Your task to perform on an android device: Open the stopwatch Image 0: 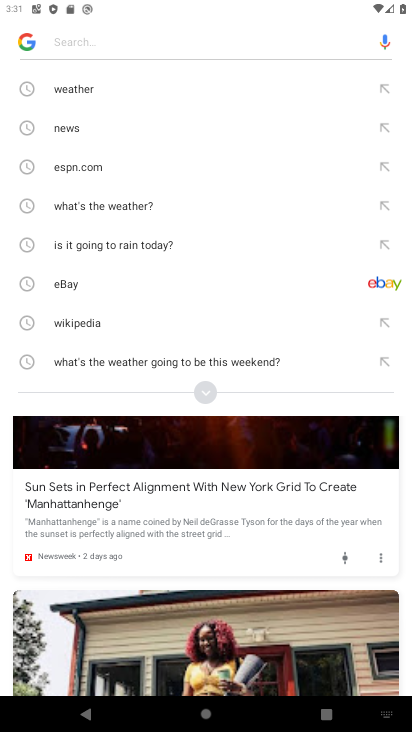
Step 0: press home button
Your task to perform on an android device: Open the stopwatch Image 1: 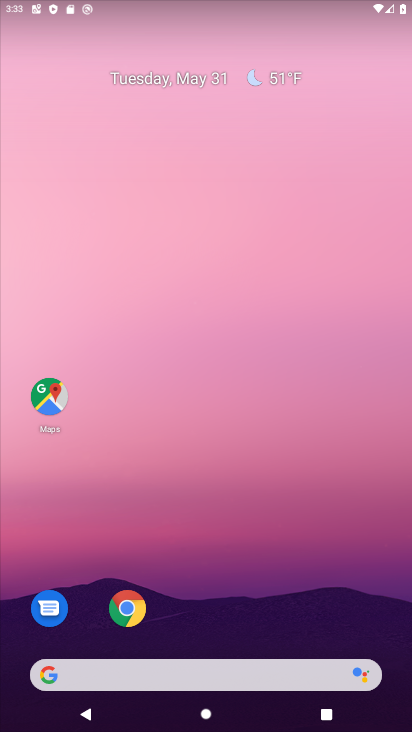
Step 1: drag from (155, 626) to (157, 274)
Your task to perform on an android device: Open the stopwatch Image 2: 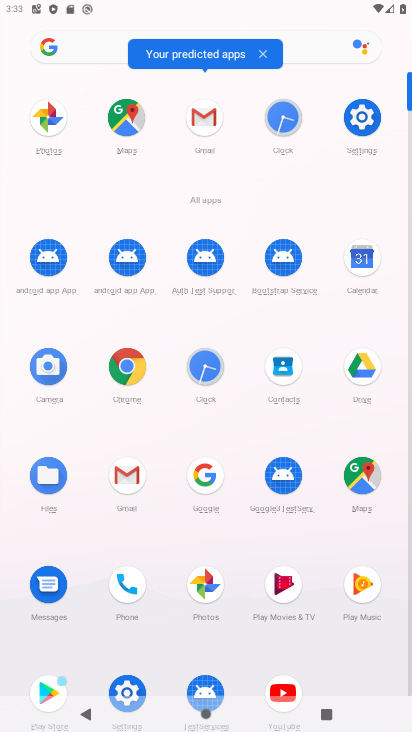
Step 2: click (271, 121)
Your task to perform on an android device: Open the stopwatch Image 3: 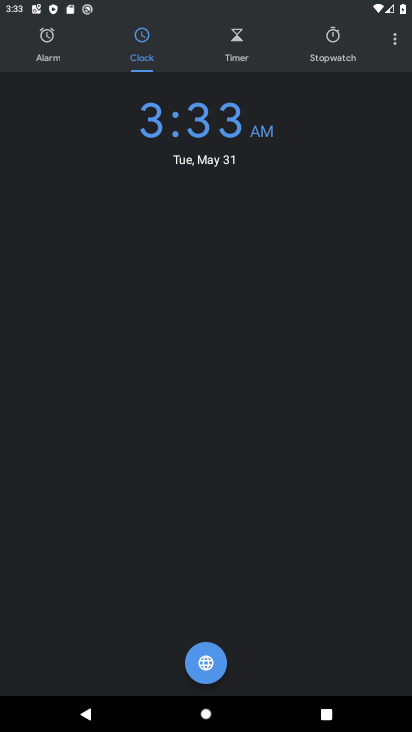
Step 3: click (330, 46)
Your task to perform on an android device: Open the stopwatch Image 4: 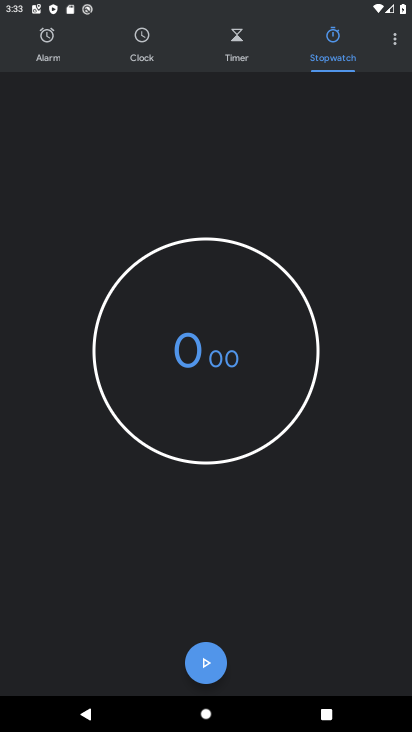
Step 4: task complete